Your task to perform on an android device: Go to Reddit.com Image 0: 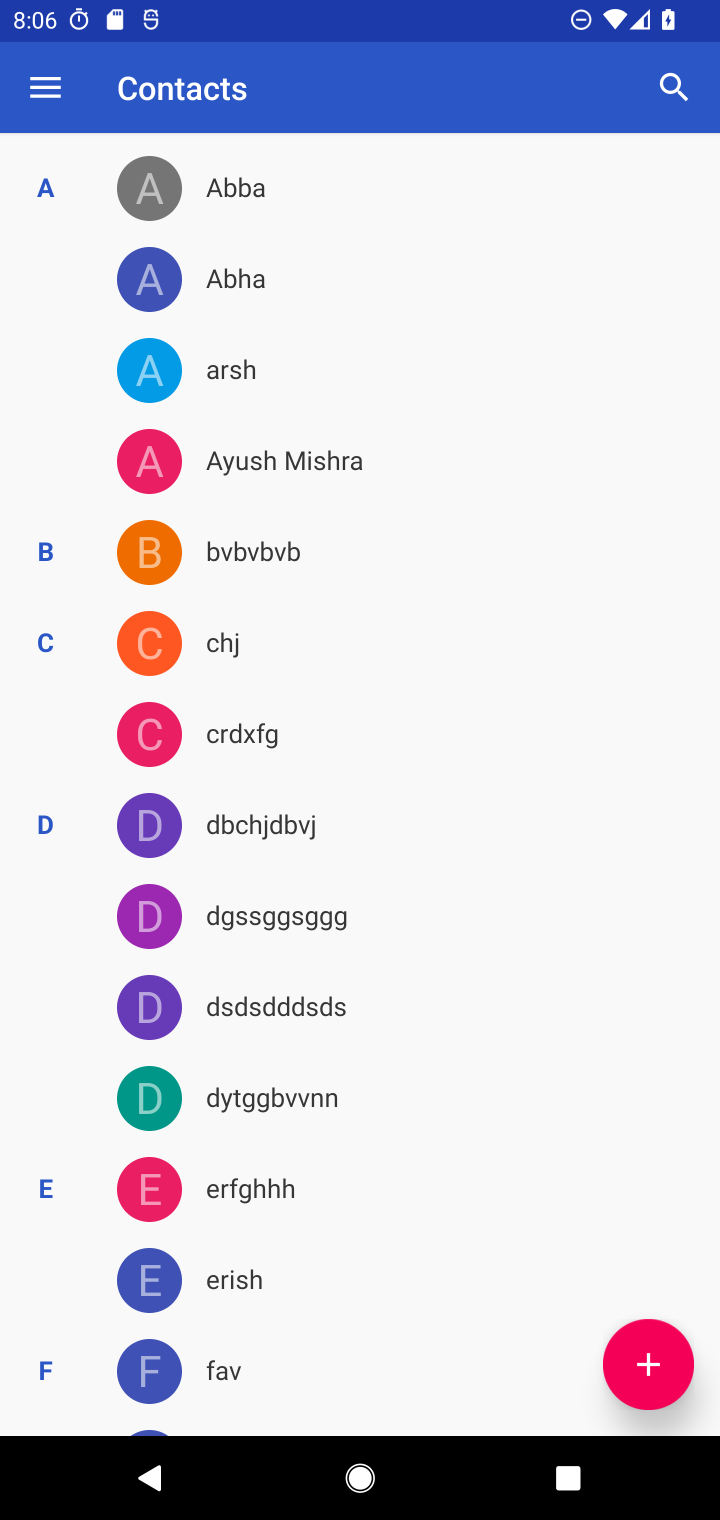
Step 0: press home button
Your task to perform on an android device: Go to Reddit.com Image 1: 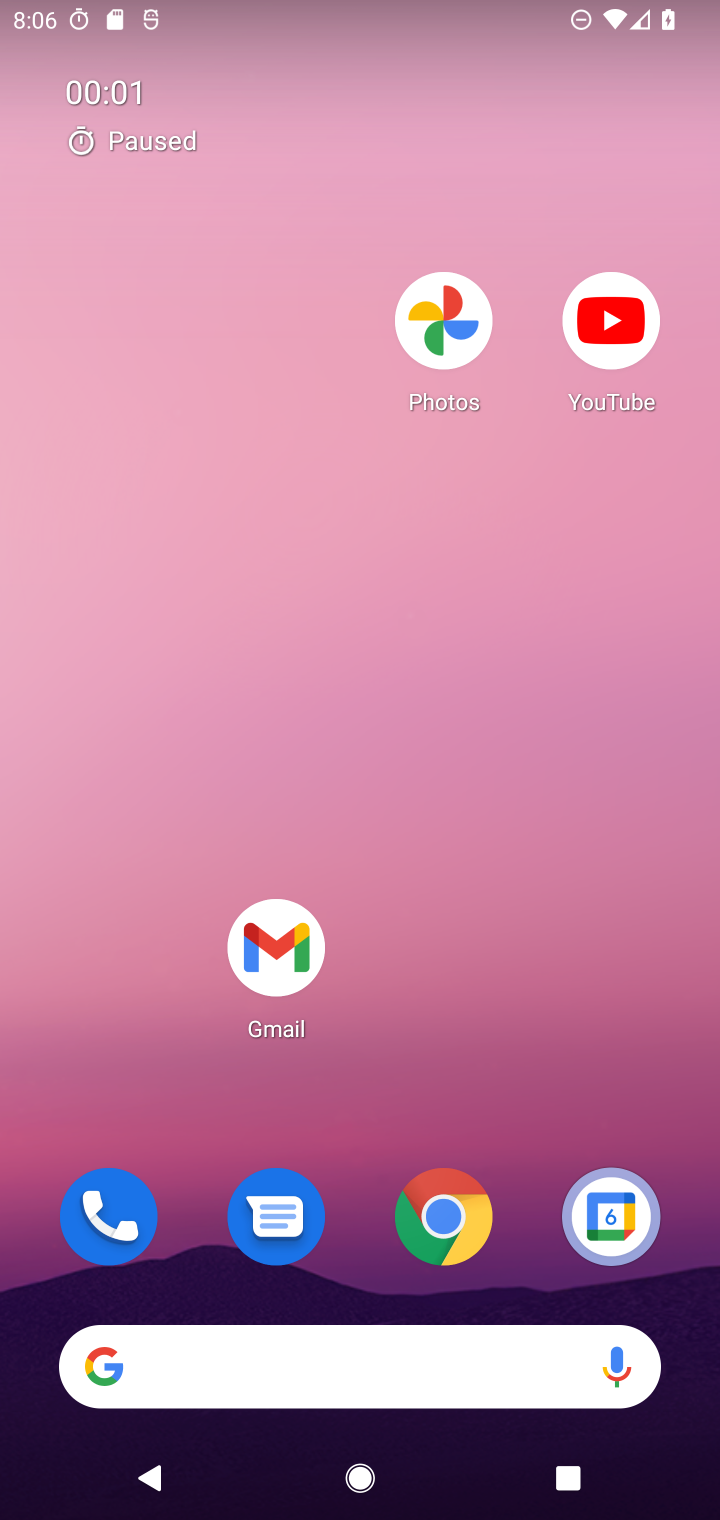
Step 1: drag from (462, 1100) to (364, 330)
Your task to perform on an android device: Go to Reddit.com Image 2: 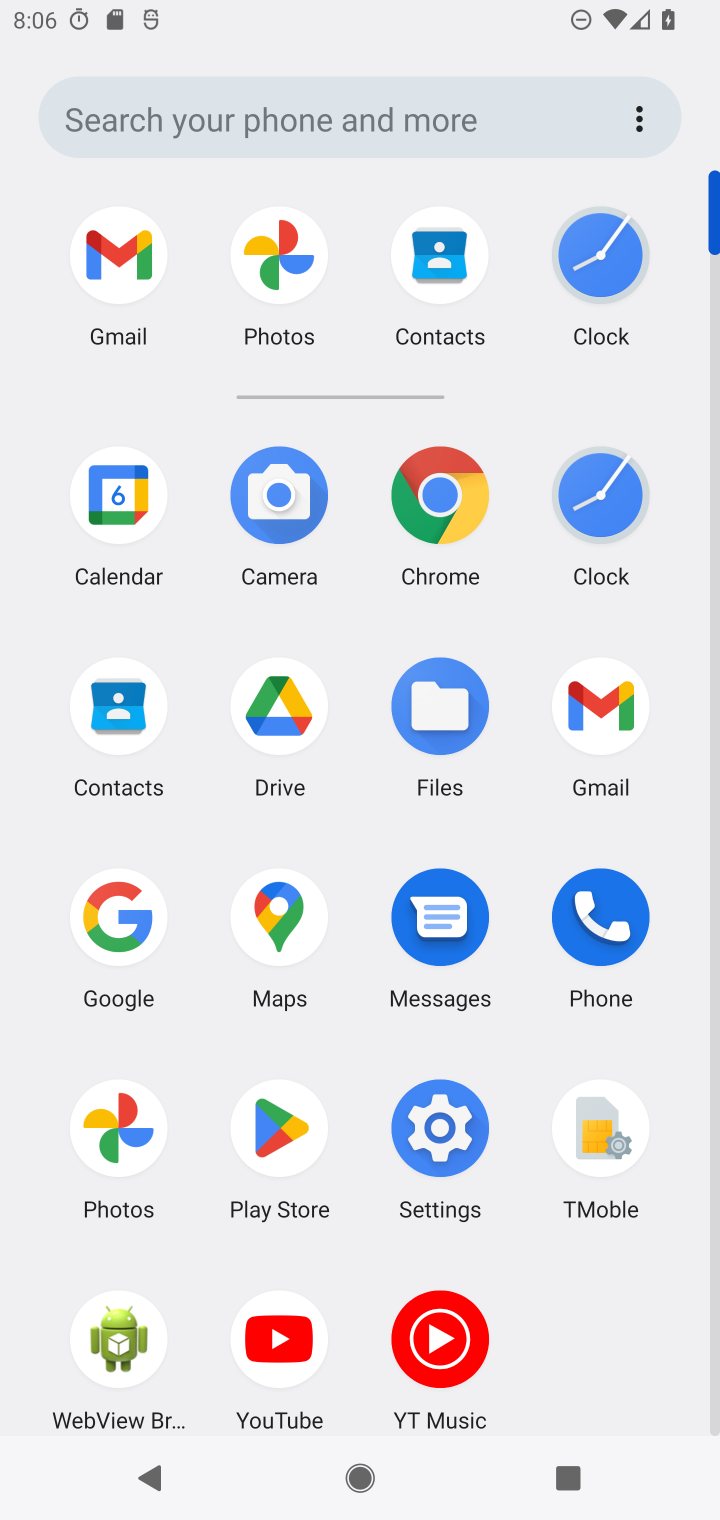
Step 2: click (438, 484)
Your task to perform on an android device: Go to Reddit.com Image 3: 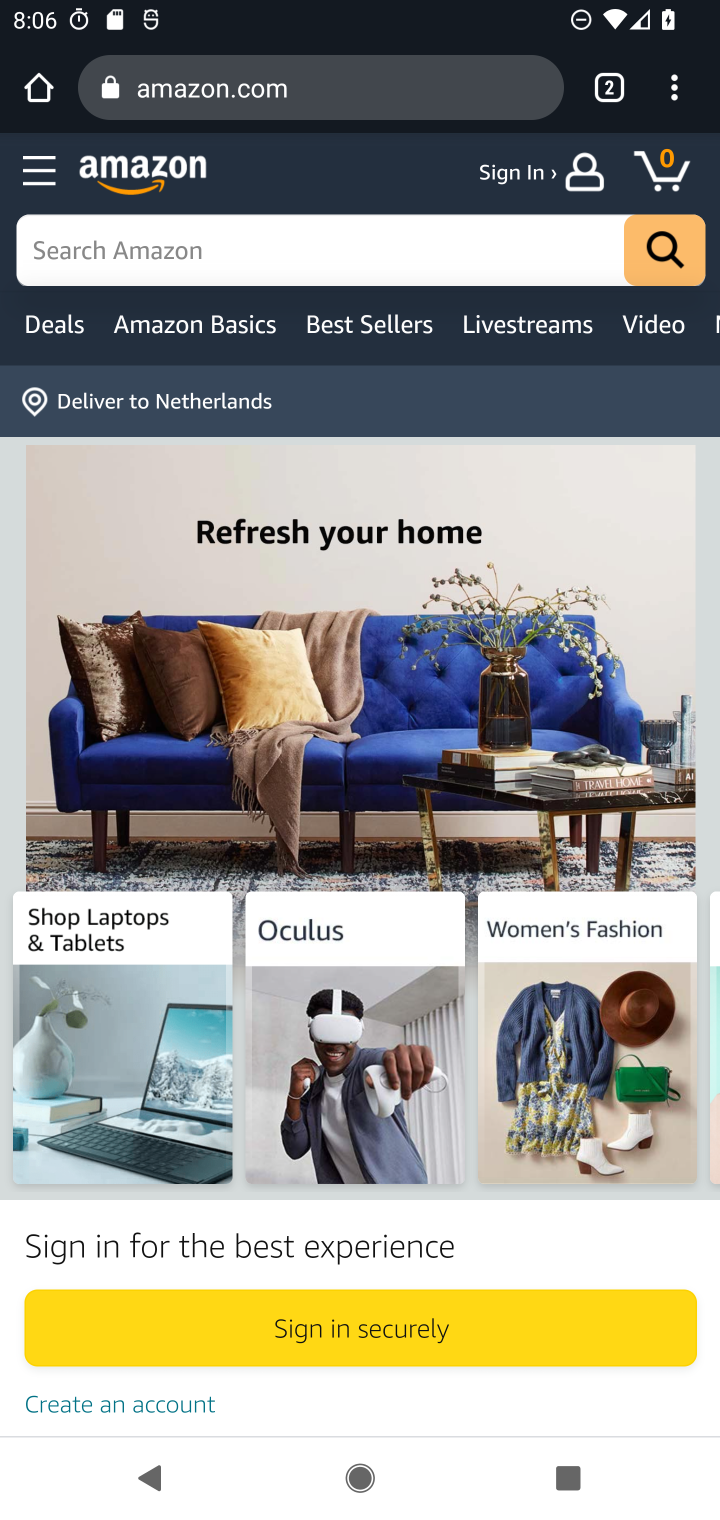
Step 3: click (391, 94)
Your task to perform on an android device: Go to Reddit.com Image 4: 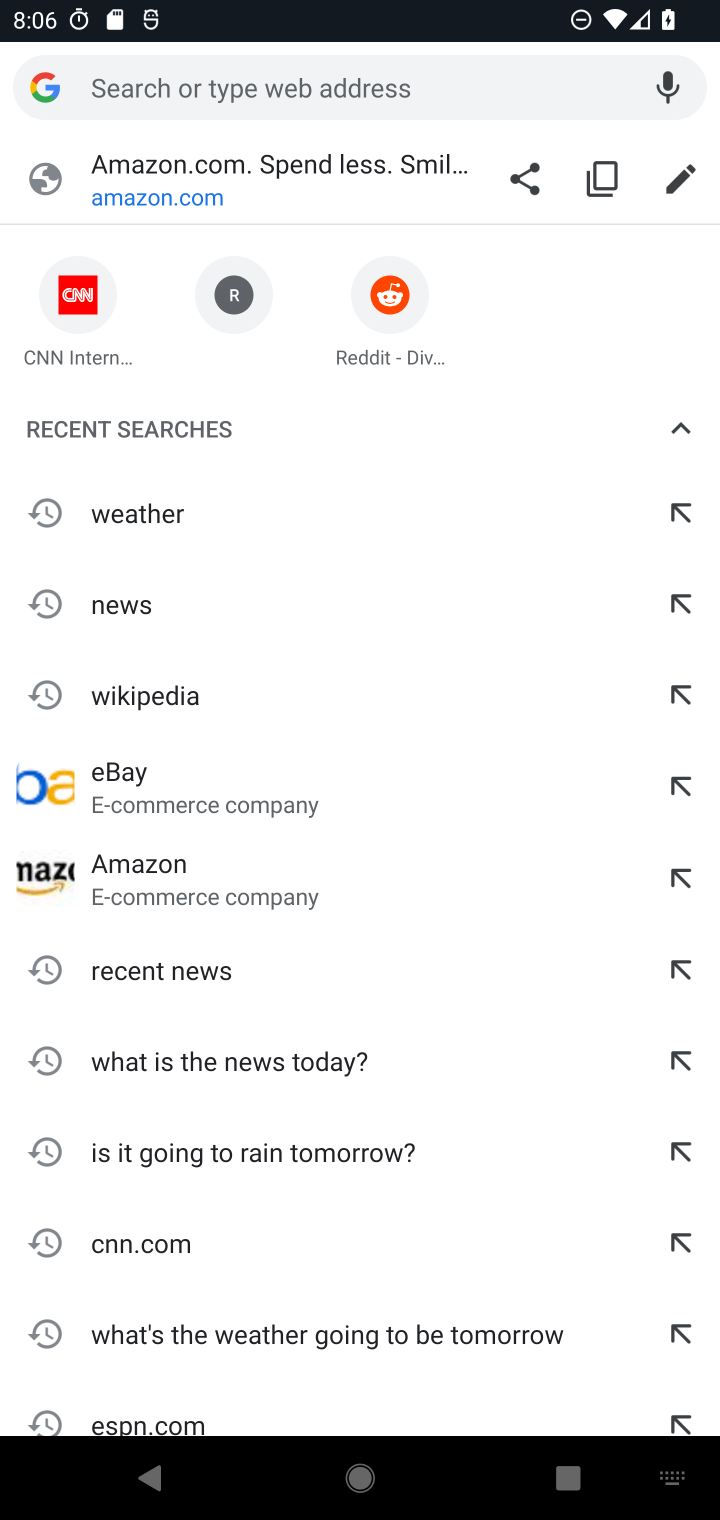
Step 4: type "reddit.com"
Your task to perform on an android device: Go to Reddit.com Image 5: 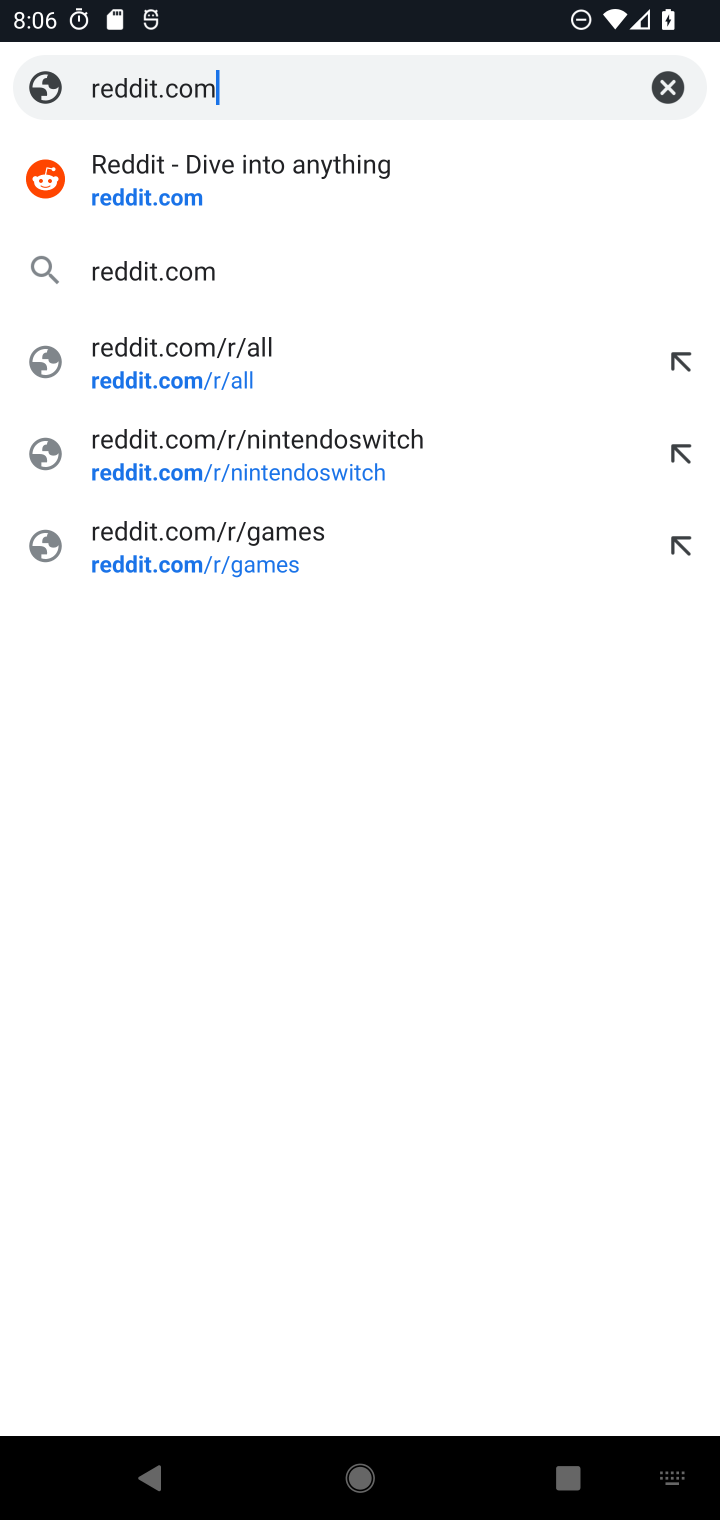
Step 5: click (203, 197)
Your task to perform on an android device: Go to Reddit.com Image 6: 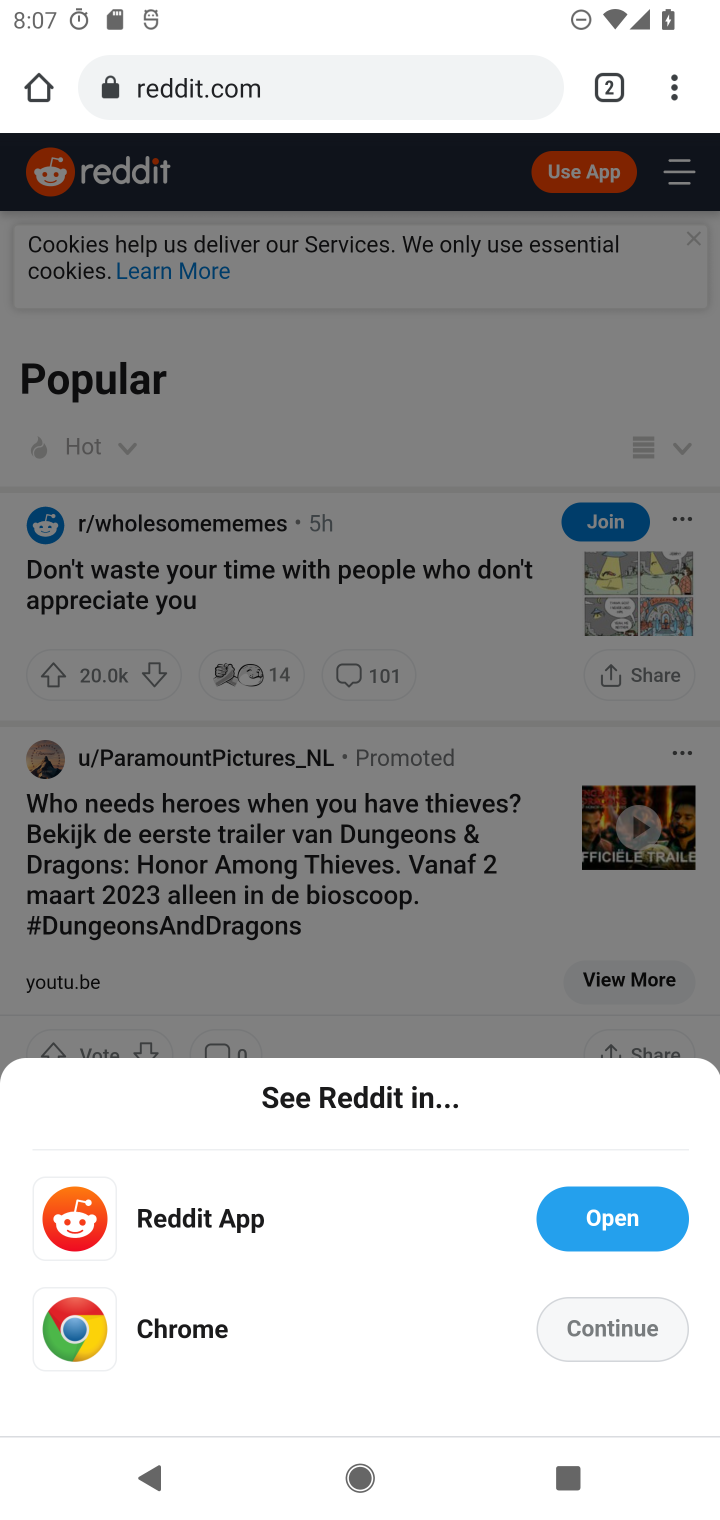
Step 6: task complete